Your task to perform on an android device: Set the phone to "Do not disturb". Image 0: 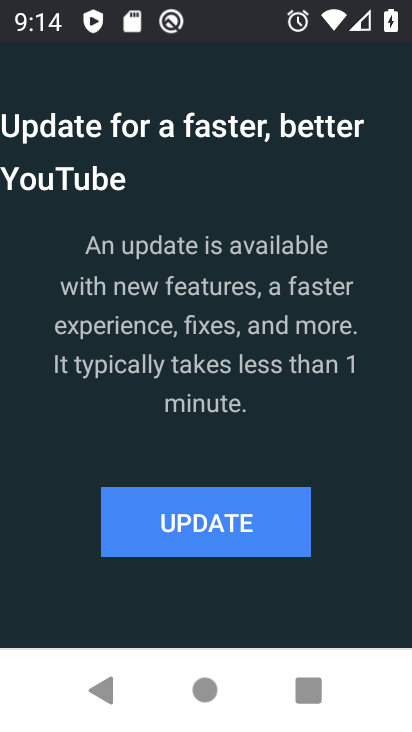
Step 0: press home button
Your task to perform on an android device: Set the phone to "Do not disturb". Image 1: 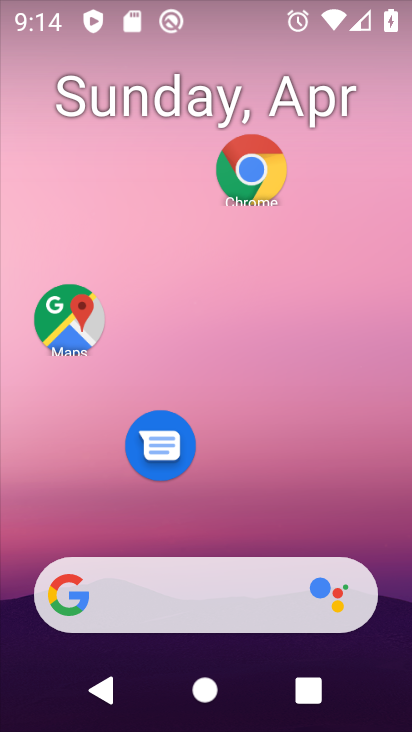
Step 1: drag from (257, 470) to (277, 59)
Your task to perform on an android device: Set the phone to "Do not disturb". Image 2: 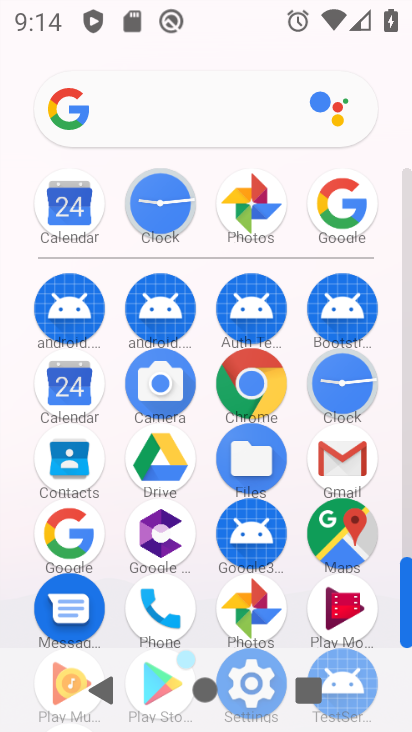
Step 2: drag from (202, 489) to (205, 255)
Your task to perform on an android device: Set the phone to "Do not disturb". Image 3: 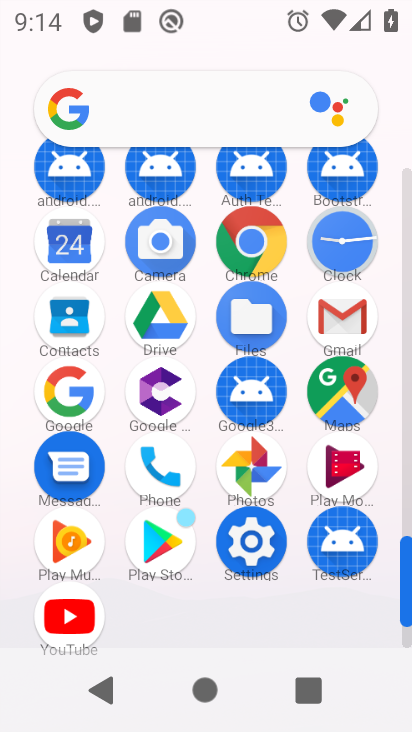
Step 3: click (255, 537)
Your task to perform on an android device: Set the phone to "Do not disturb". Image 4: 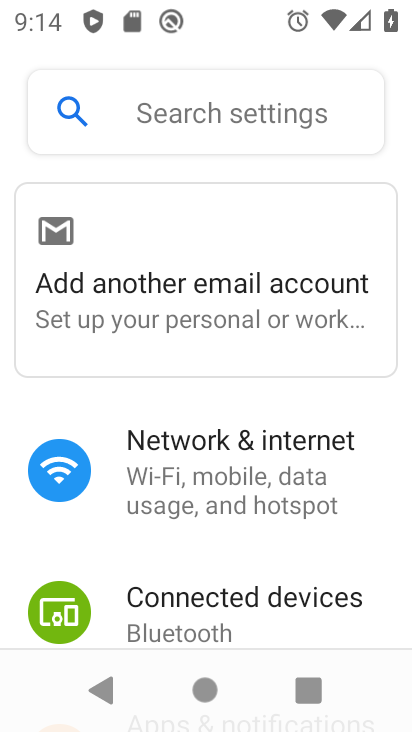
Step 4: drag from (306, 538) to (304, 299)
Your task to perform on an android device: Set the phone to "Do not disturb". Image 5: 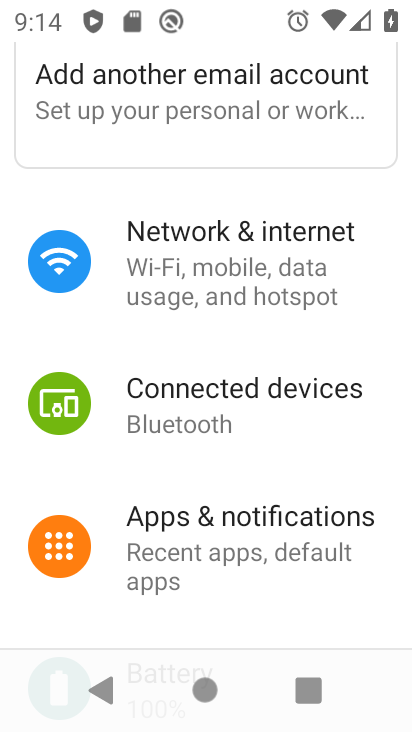
Step 5: drag from (287, 451) to (287, 171)
Your task to perform on an android device: Set the phone to "Do not disturb". Image 6: 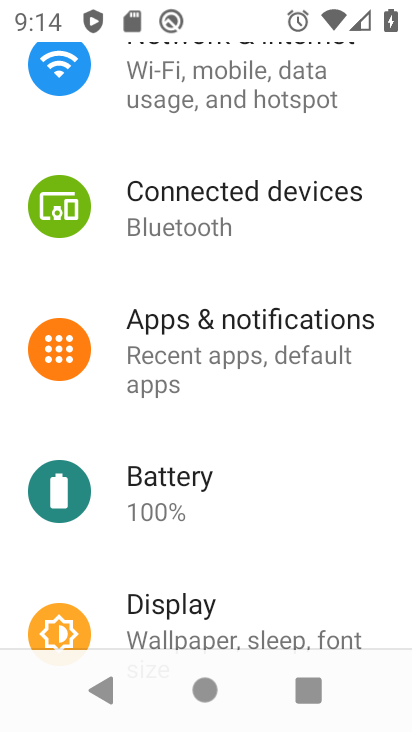
Step 6: drag from (284, 584) to (292, 291)
Your task to perform on an android device: Set the phone to "Do not disturb". Image 7: 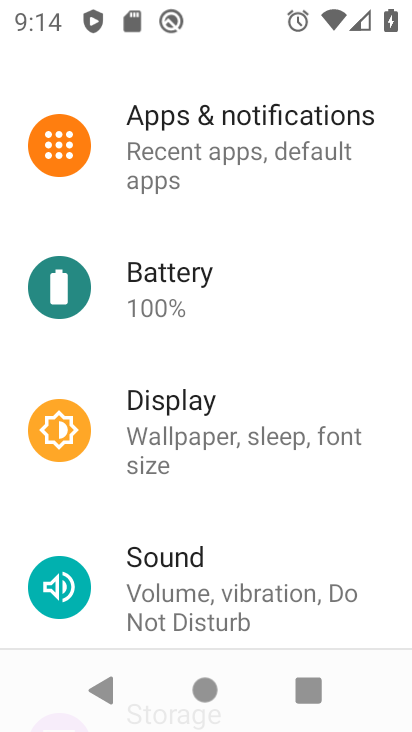
Step 7: click (209, 594)
Your task to perform on an android device: Set the phone to "Do not disturb". Image 8: 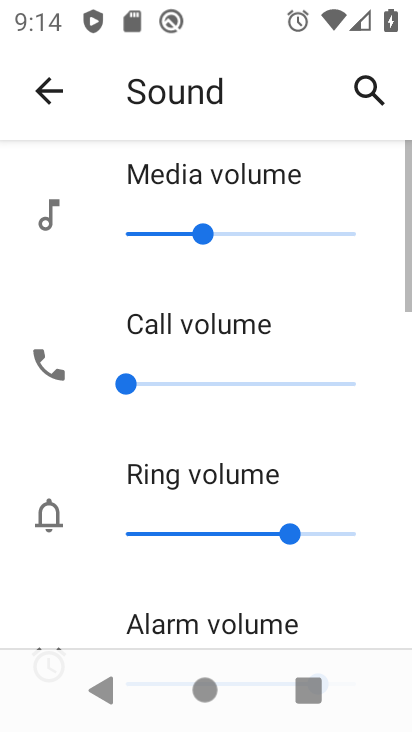
Step 8: drag from (313, 476) to (316, 58)
Your task to perform on an android device: Set the phone to "Do not disturb". Image 9: 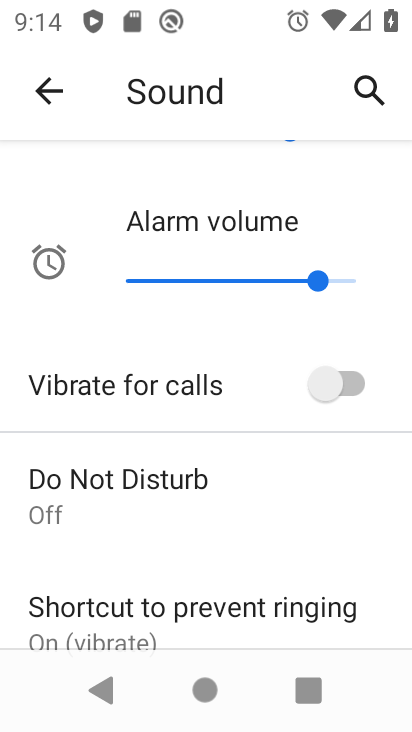
Step 9: click (132, 482)
Your task to perform on an android device: Set the phone to "Do not disturb". Image 10: 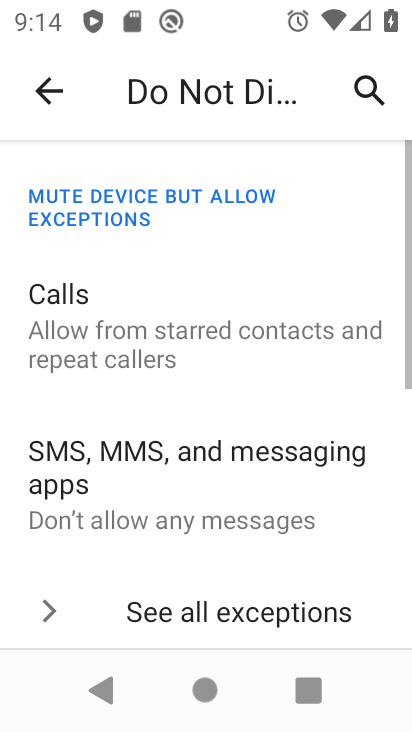
Step 10: drag from (282, 414) to (272, 82)
Your task to perform on an android device: Set the phone to "Do not disturb". Image 11: 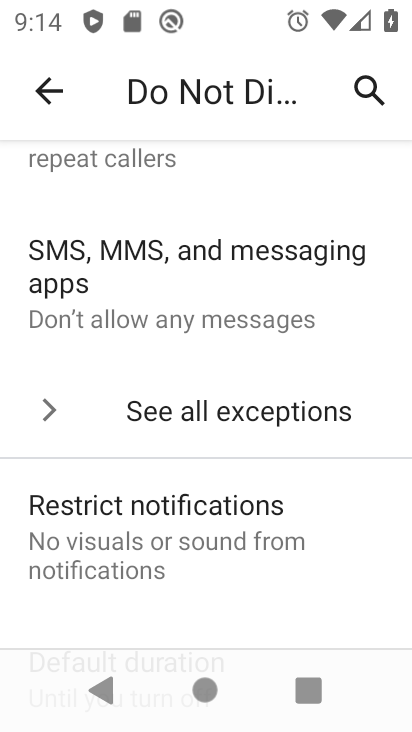
Step 11: drag from (210, 543) to (200, 58)
Your task to perform on an android device: Set the phone to "Do not disturb". Image 12: 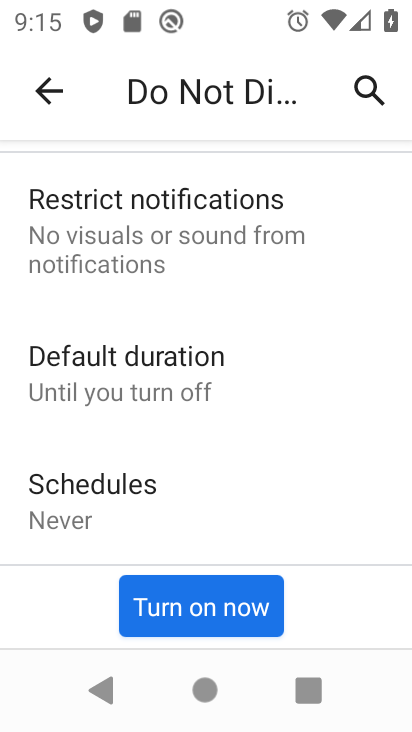
Step 12: click (222, 602)
Your task to perform on an android device: Set the phone to "Do not disturb". Image 13: 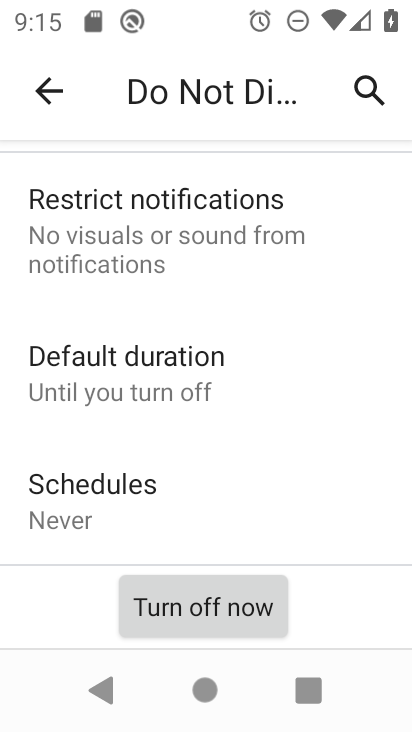
Step 13: task complete